Your task to perform on an android device: Clear the cart on newegg. Image 0: 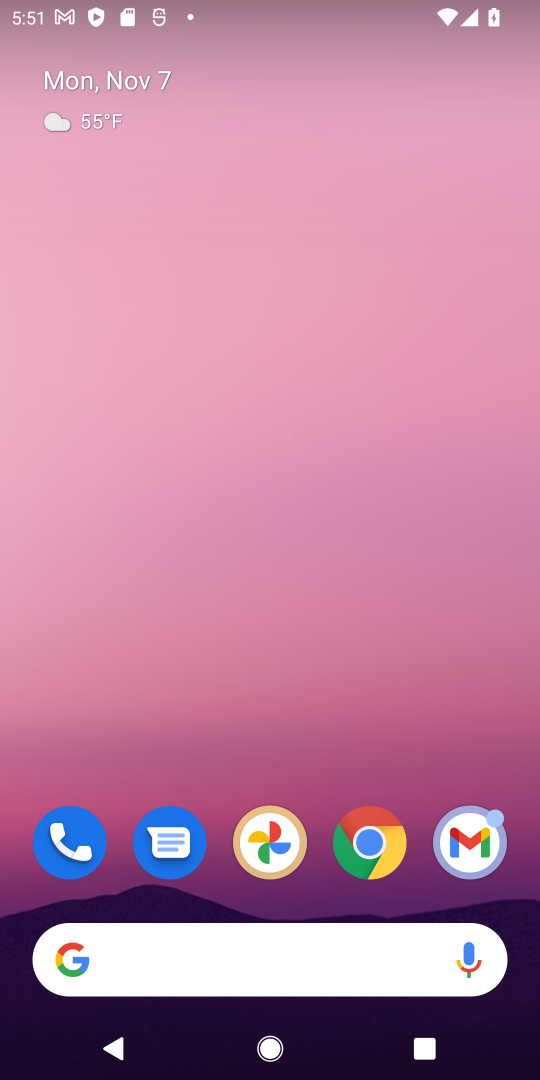
Step 0: click (372, 844)
Your task to perform on an android device: Clear the cart on newegg. Image 1: 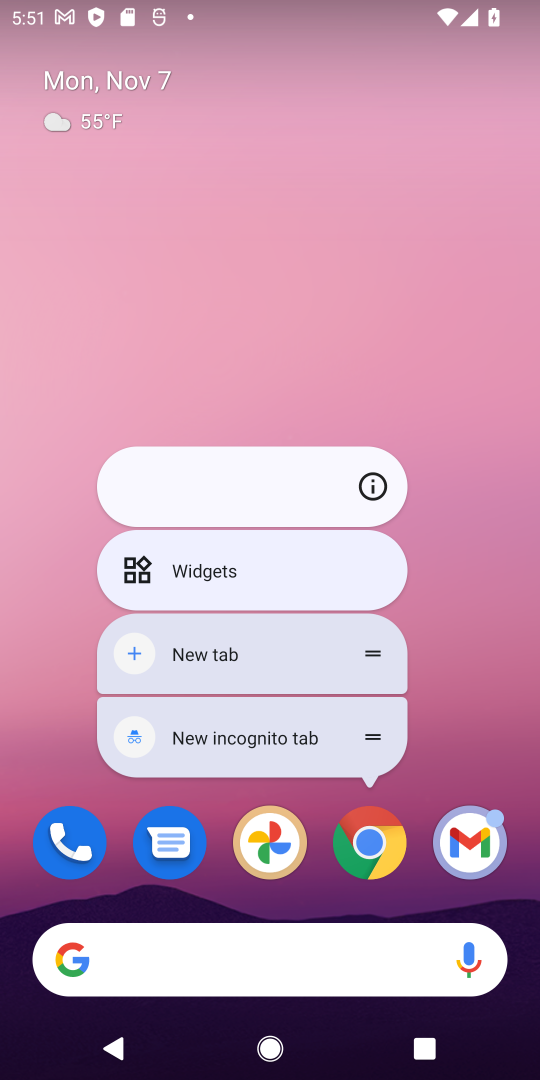
Step 1: click (373, 834)
Your task to perform on an android device: Clear the cart on newegg. Image 2: 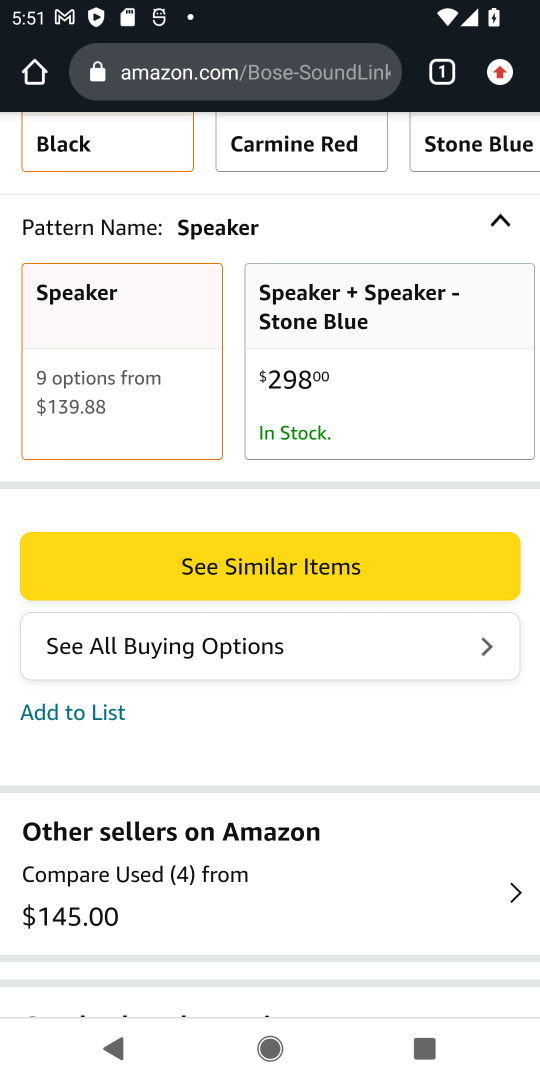
Step 2: click (298, 71)
Your task to perform on an android device: Clear the cart on newegg. Image 3: 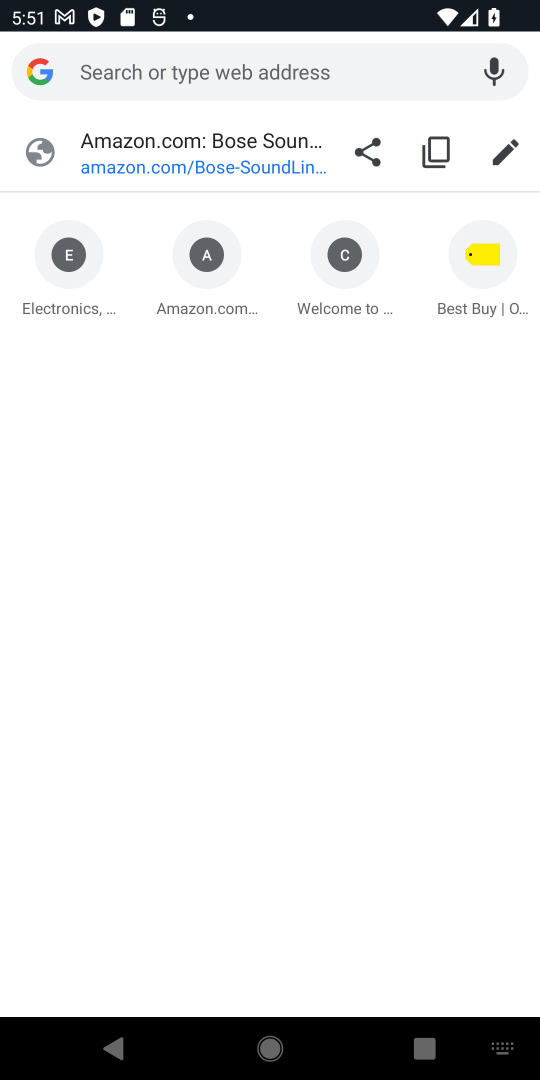
Step 3: type "newegg"
Your task to perform on an android device: Clear the cart on newegg. Image 4: 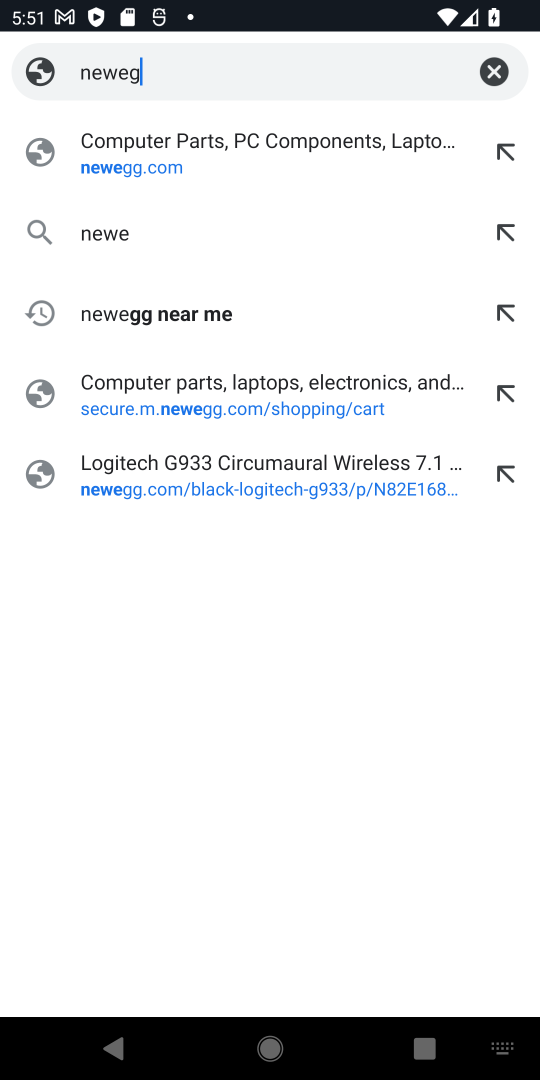
Step 4: press enter
Your task to perform on an android device: Clear the cart on newegg. Image 5: 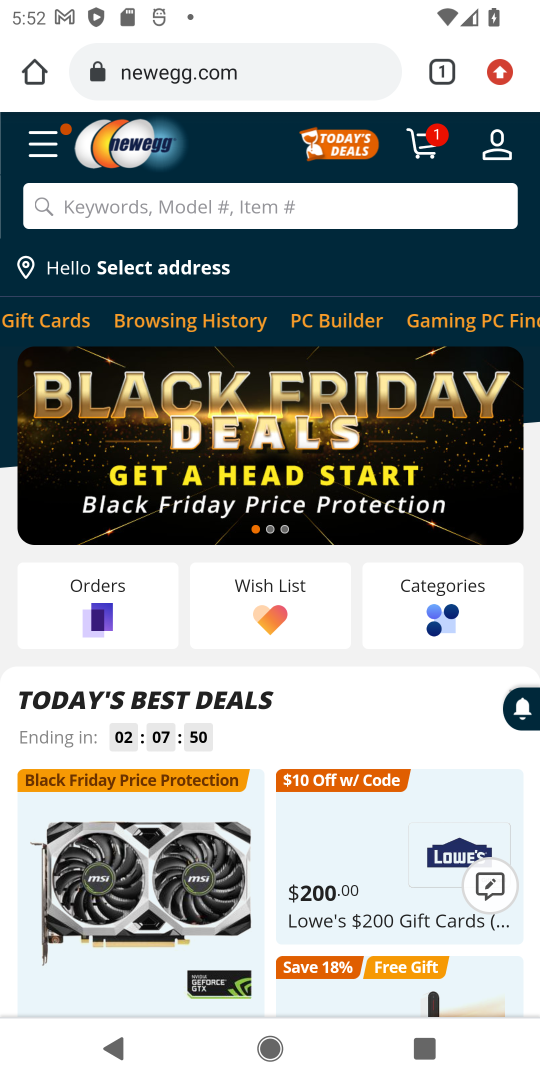
Step 5: click (440, 144)
Your task to perform on an android device: Clear the cart on newegg. Image 6: 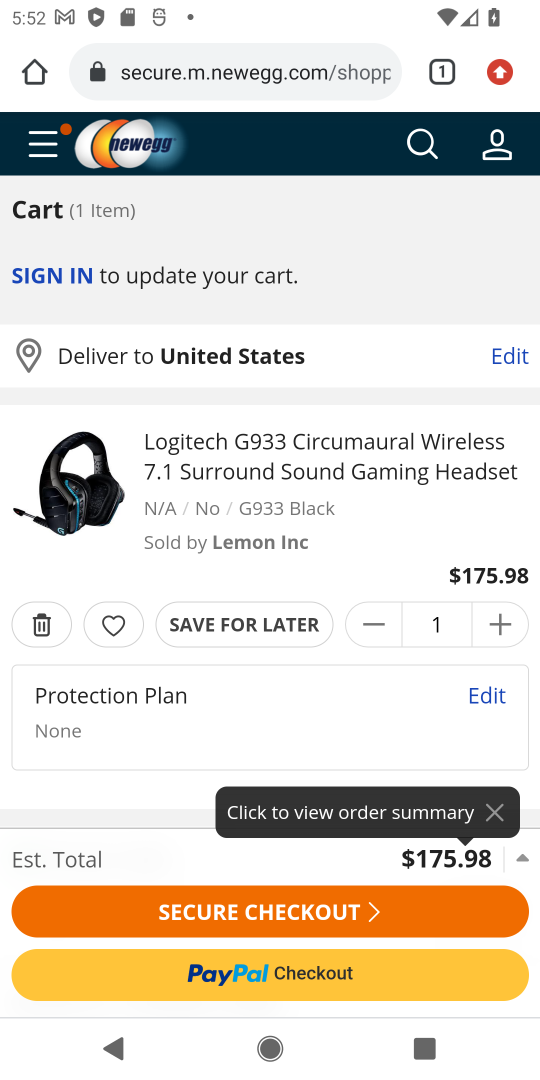
Step 6: click (39, 628)
Your task to perform on an android device: Clear the cart on newegg. Image 7: 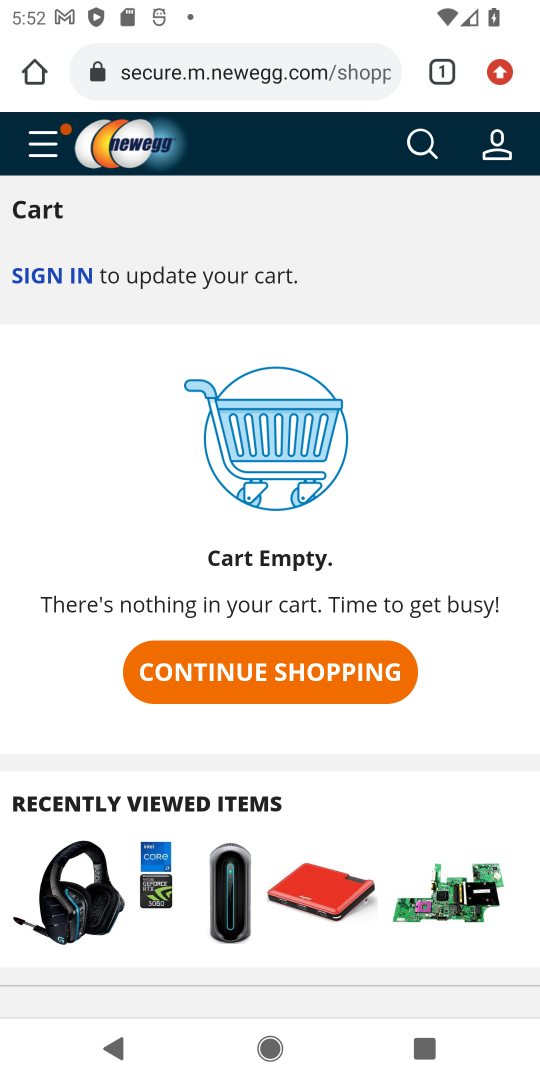
Step 7: task complete